Your task to perform on an android device: turn on improve location accuracy Image 0: 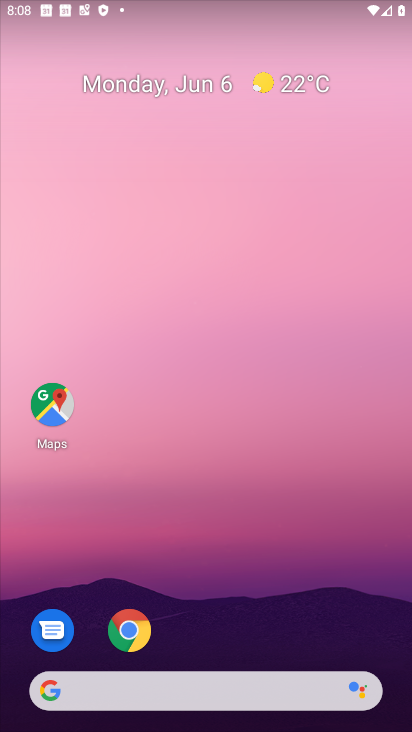
Step 0: drag from (185, 619) to (281, 44)
Your task to perform on an android device: turn on improve location accuracy Image 1: 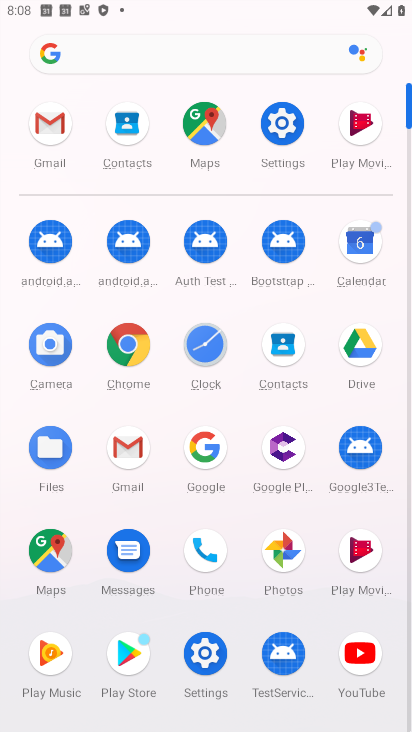
Step 1: click (285, 144)
Your task to perform on an android device: turn on improve location accuracy Image 2: 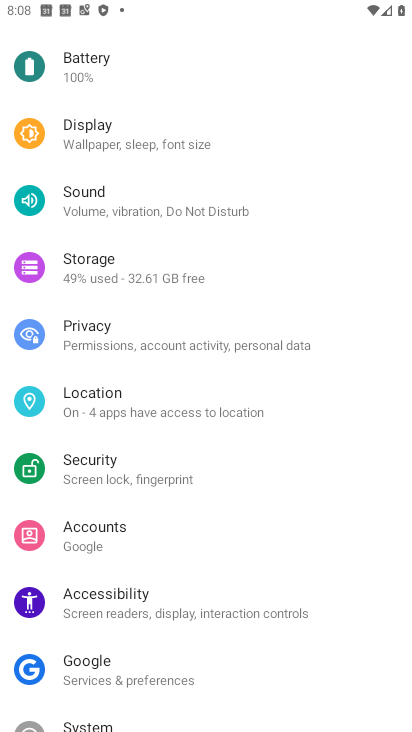
Step 2: click (159, 418)
Your task to perform on an android device: turn on improve location accuracy Image 3: 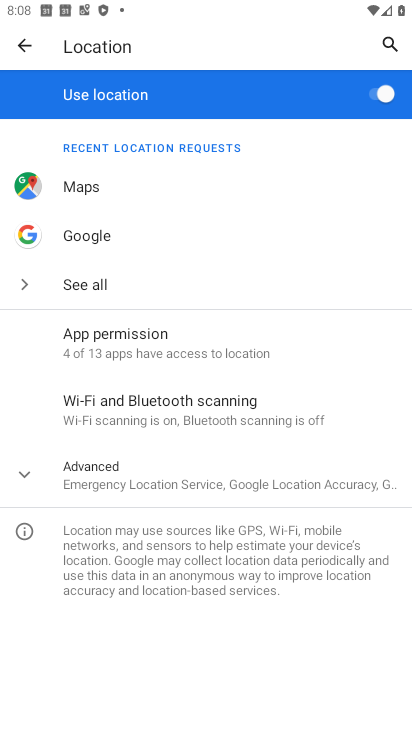
Step 3: task complete